Your task to perform on an android device: Go to battery settings Image 0: 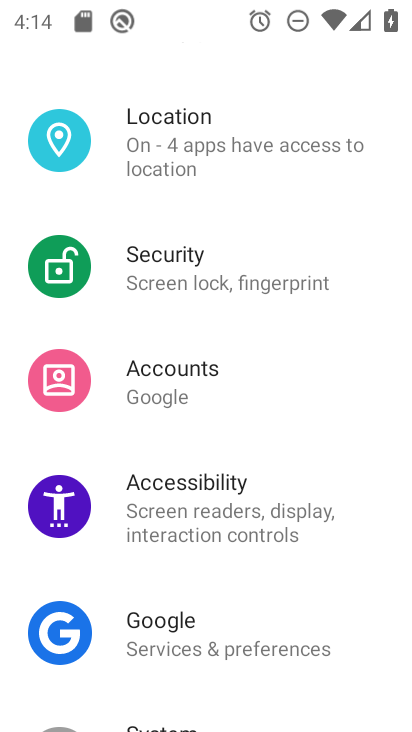
Step 0: drag from (178, 181) to (194, 697)
Your task to perform on an android device: Go to battery settings Image 1: 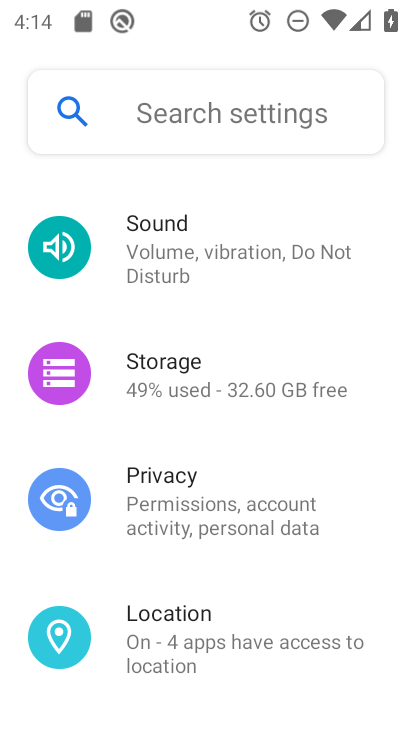
Step 1: drag from (187, 285) to (171, 716)
Your task to perform on an android device: Go to battery settings Image 2: 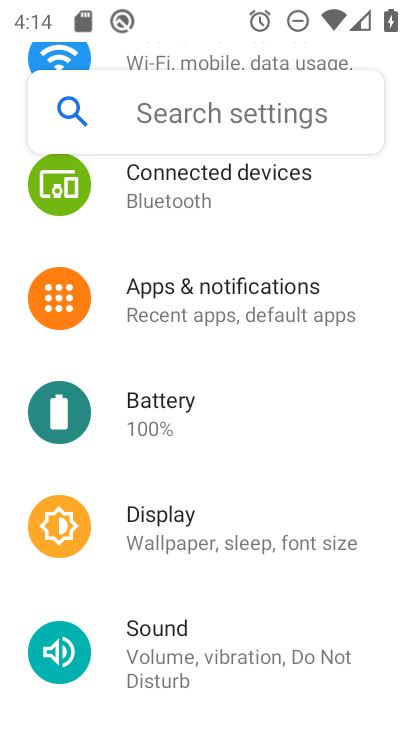
Step 2: click (193, 423)
Your task to perform on an android device: Go to battery settings Image 3: 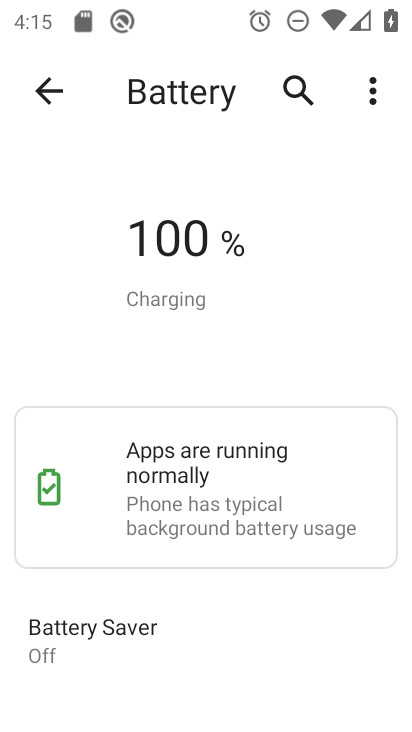
Step 3: task complete